Your task to perform on an android device: check battery use Image 0: 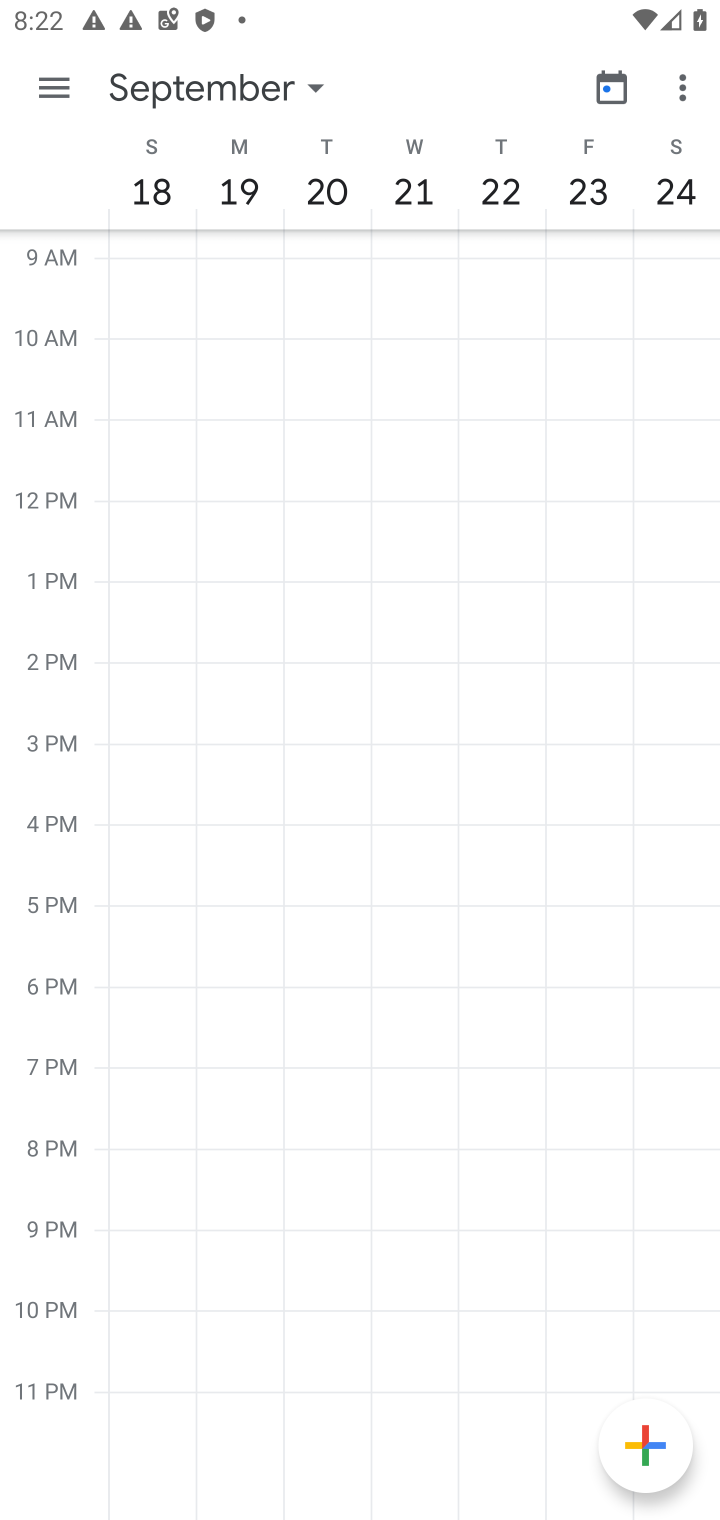
Step 0: press home button
Your task to perform on an android device: check battery use Image 1: 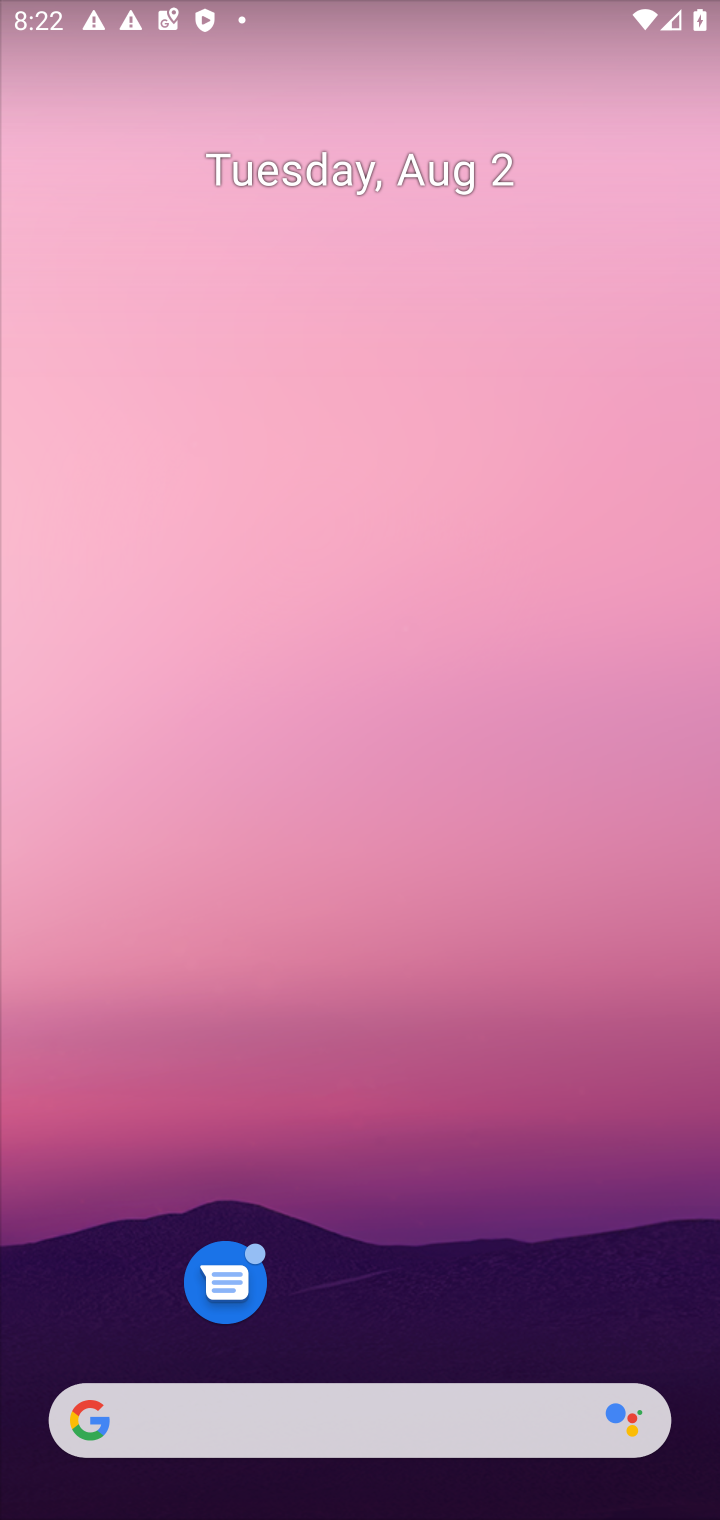
Step 1: drag from (433, 1349) to (355, 7)
Your task to perform on an android device: check battery use Image 2: 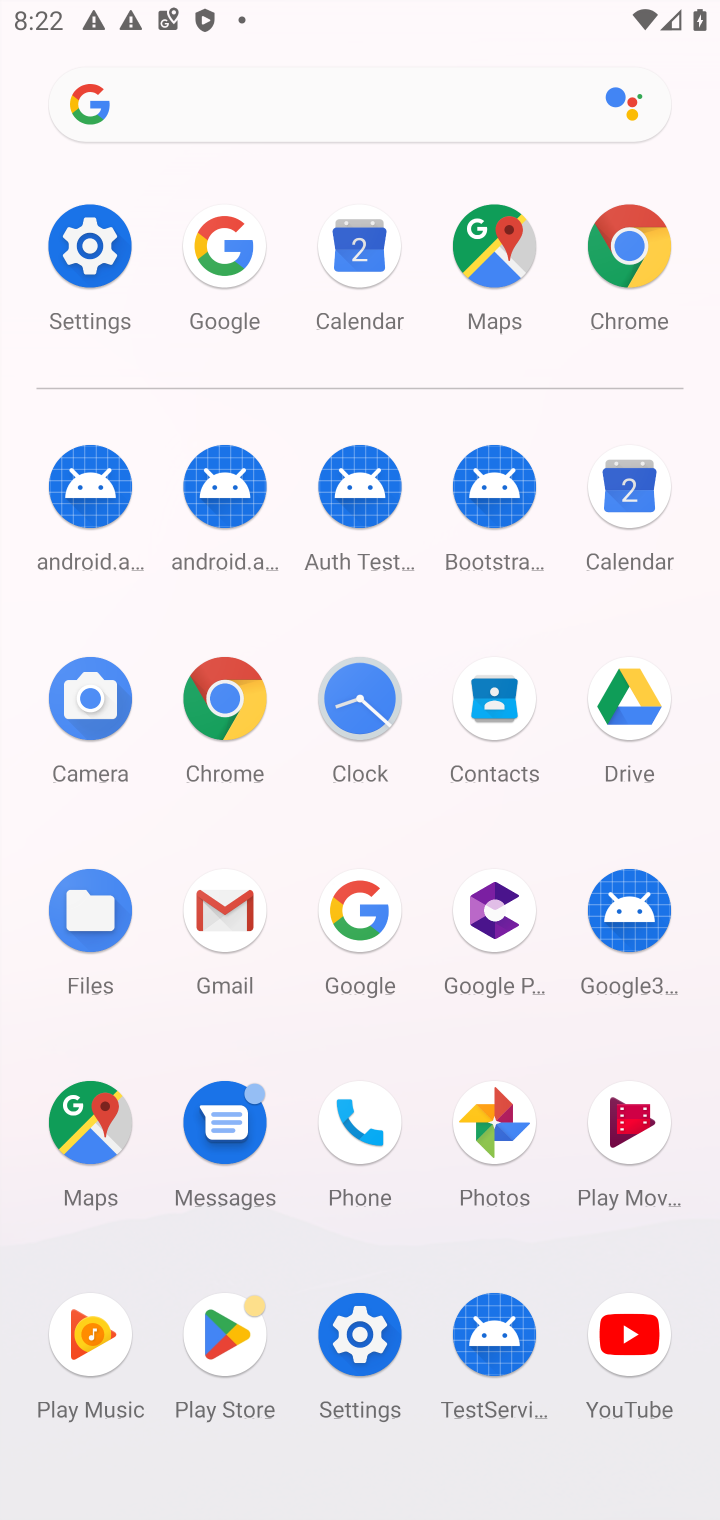
Step 2: click (79, 264)
Your task to perform on an android device: check battery use Image 3: 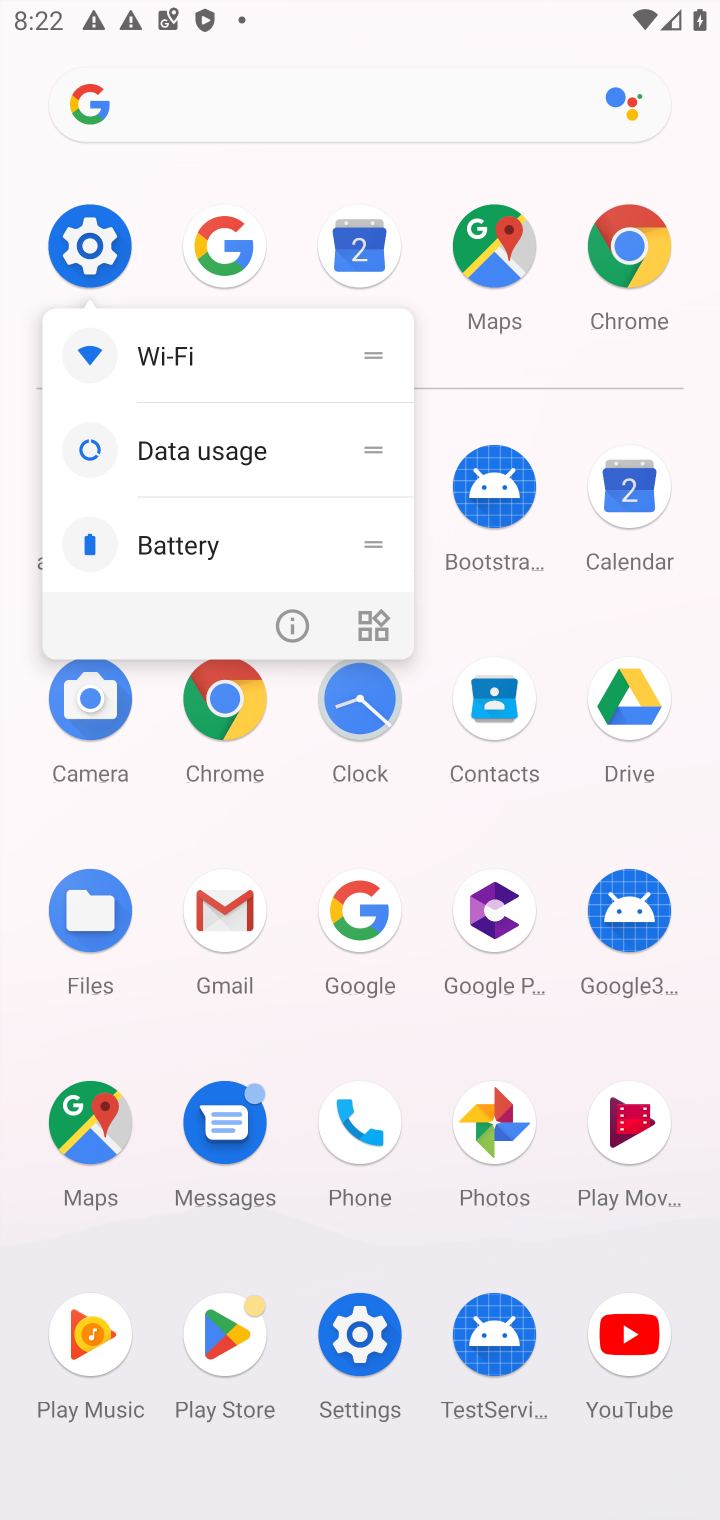
Step 3: click (63, 235)
Your task to perform on an android device: check battery use Image 4: 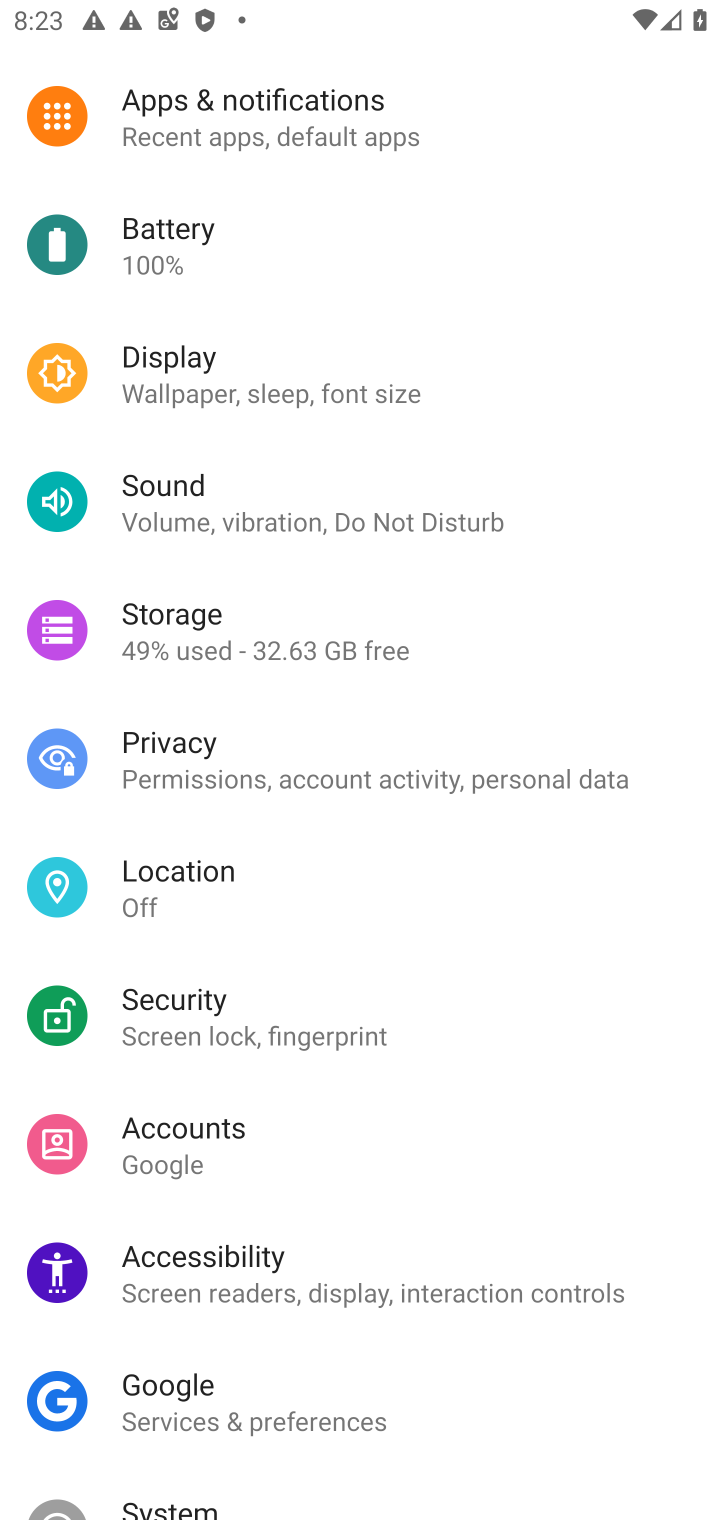
Step 4: drag from (429, 1121) to (383, 307)
Your task to perform on an android device: check battery use Image 5: 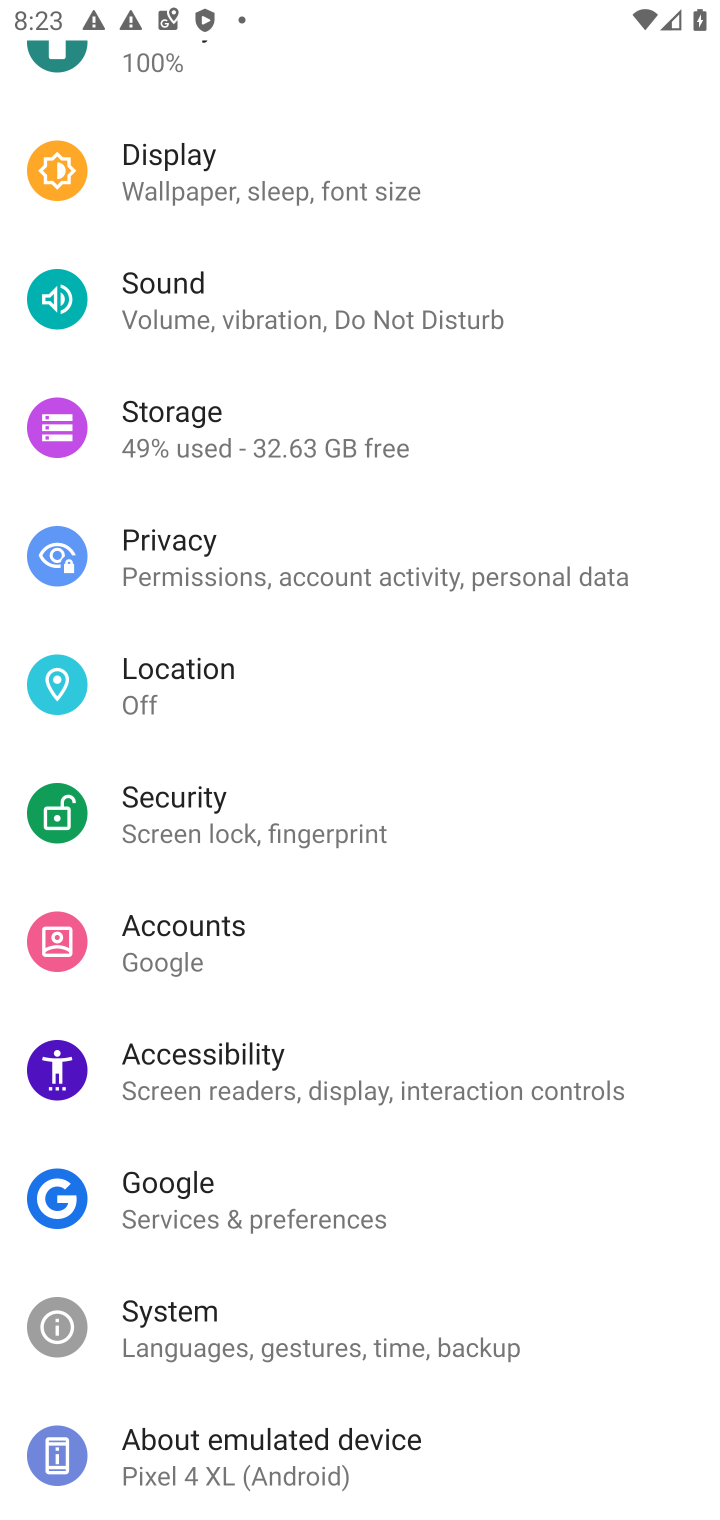
Step 5: click (148, 56)
Your task to perform on an android device: check battery use Image 6: 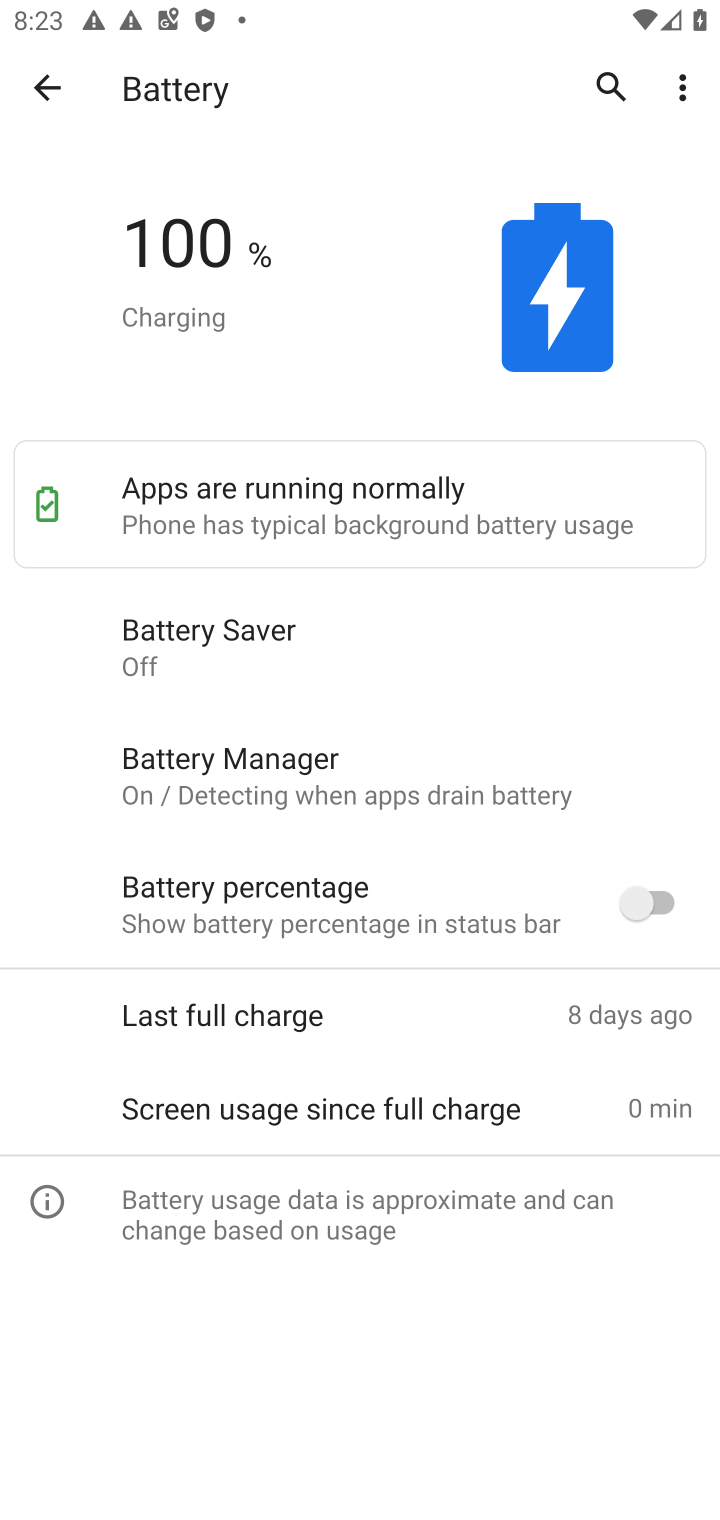
Step 6: task complete